Your task to perform on an android device: check storage Image 0: 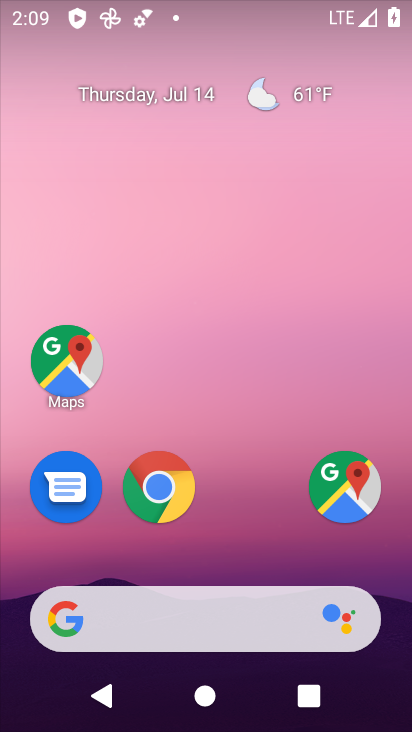
Step 0: drag from (253, 532) to (276, 148)
Your task to perform on an android device: check storage Image 1: 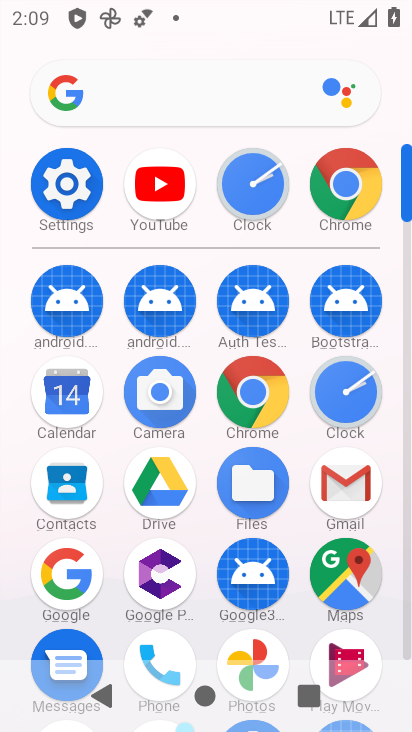
Step 1: click (78, 197)
Your task to perform on an android device: check storage Image 2: 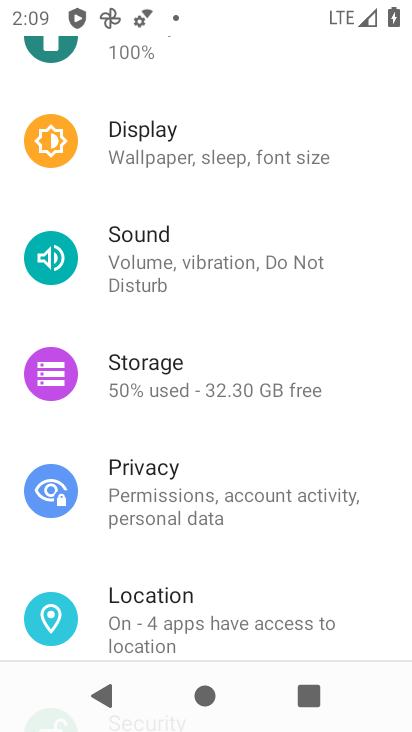
Step 2: drag from (374, 201) to (374, 306)
Your task to perform on an android device: check storage Image 3: 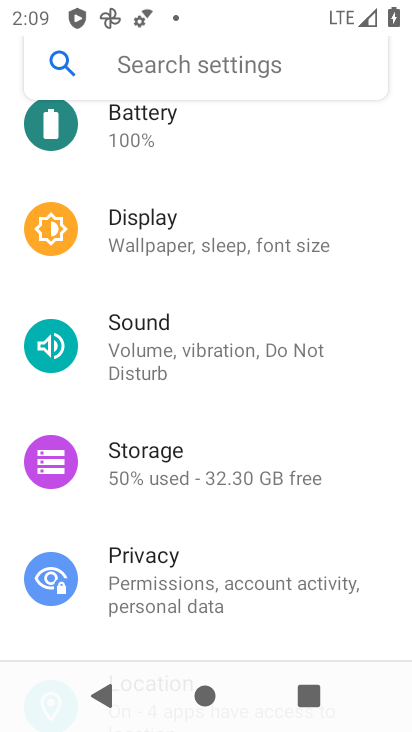
Step 3: drag from (368, 205) to (366, 285)
Your task to perform on an android device: check storage Image 4: 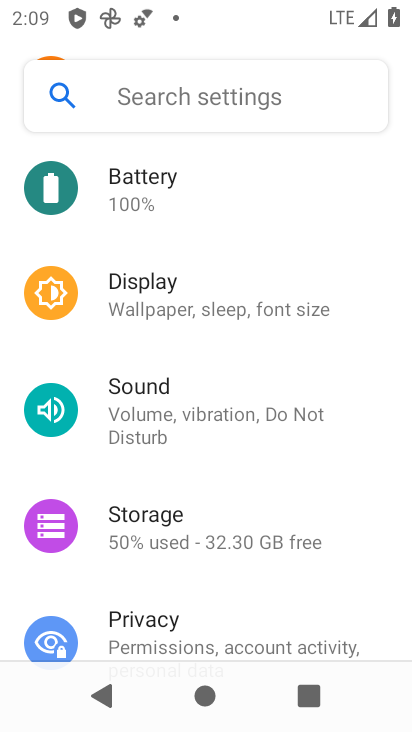
Step 4: drag from (358, 205) to (361, 311)
Your task to perform on an android device: check storage Image 5: 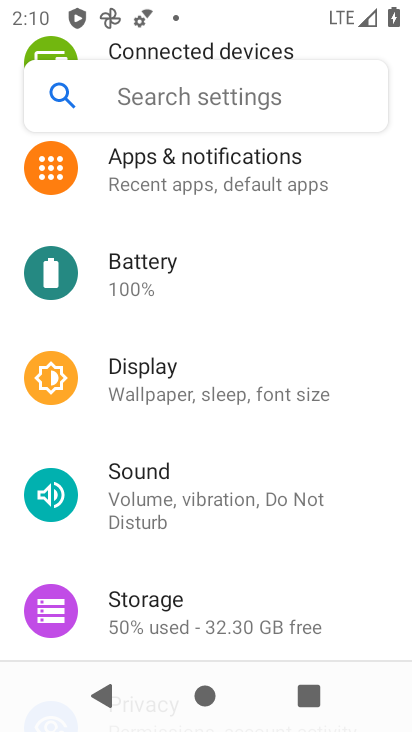
Step 5: drag from (358, 202) to (358, 313)
Your task to perform on an android device: check storage Image 6: 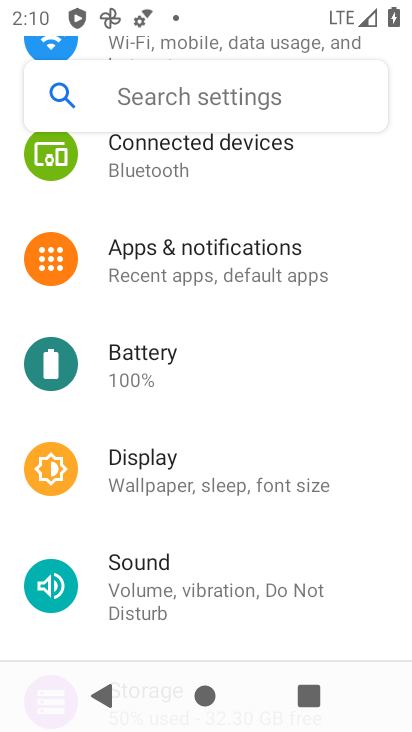
Step 6: drag from (359, 200) to (371, 355)
Your task to perform on an android device: check storage Image 7: 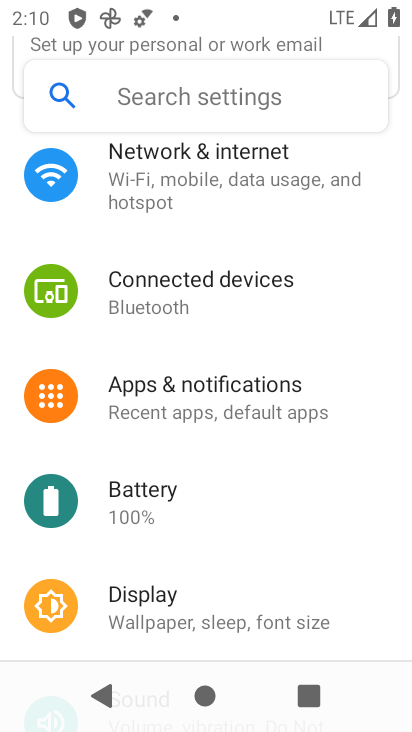
Step 7: drag from (355, 257) to (368, 375)
Your task to perform on an android device: check storage Image 8: 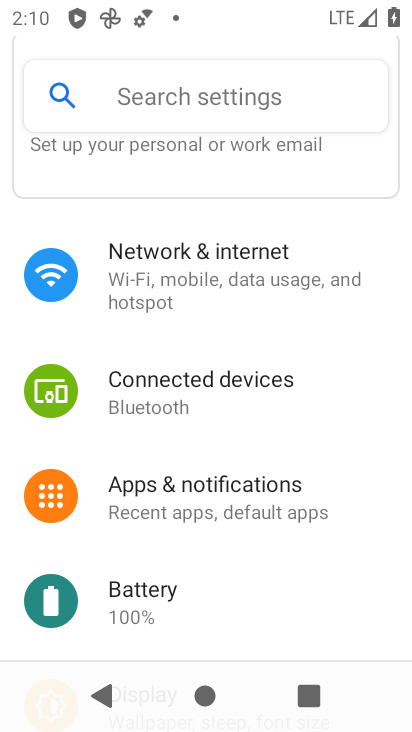
Step 8: drag from (350, 333) to (357, 482)
Your task to perform on an android device: check storage Image 9: 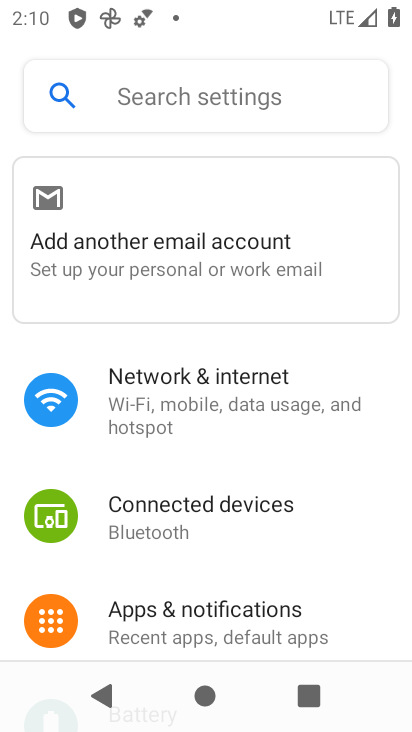
Step 9: drag from (367, 516) to (368, 436)
Your task to perform on an android device: check storage Image 10: 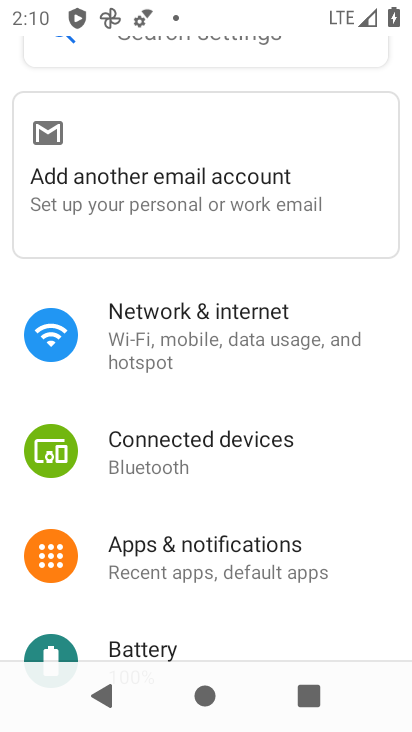
Step 10: drag from (370, 521) to (371, 443)
Your task to perform on an android device: check storage Image 11: 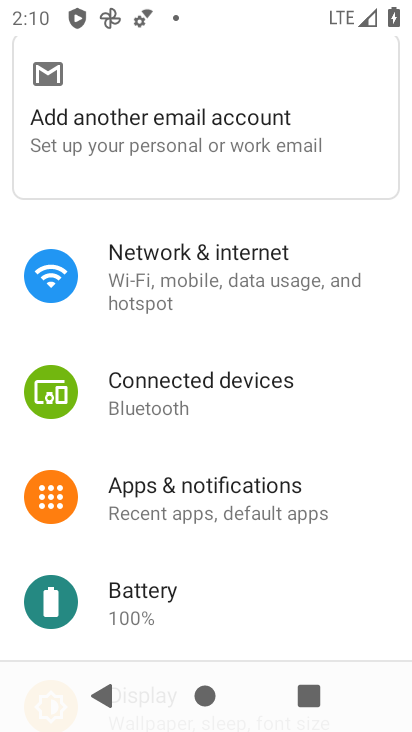
Step 11: drag from (371, 522) to (370, 432)
Your task to perform on an android device: check storage Image 12: 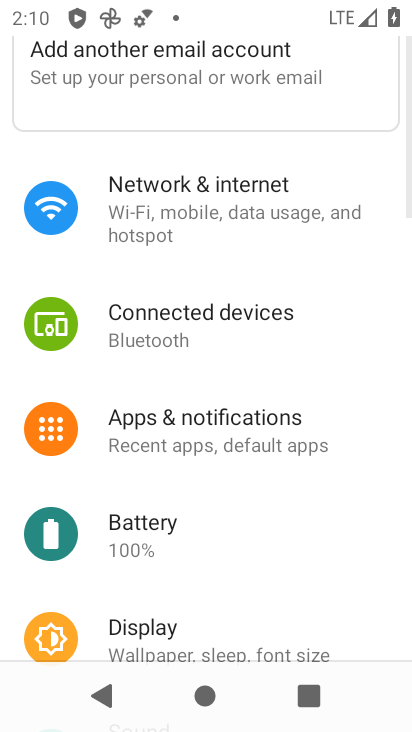
Step 12: drag from (369, 517) to (369, 449)
Your task to perform on an android device: check storage Image 13: 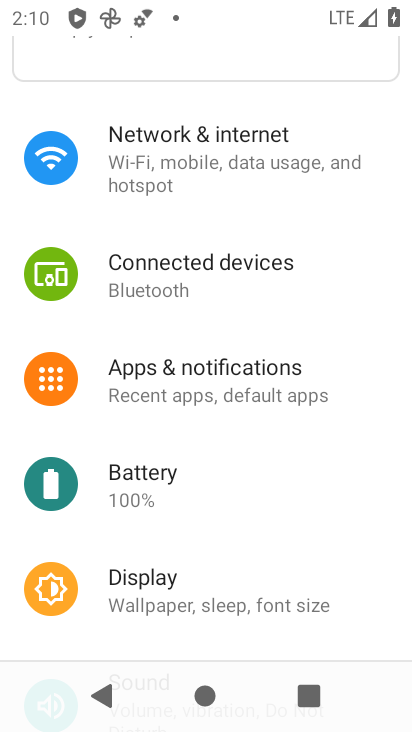
Step 13: drag from (358, 528) to (357, 410)
Your task to perform on an android device: check storage Image 14: 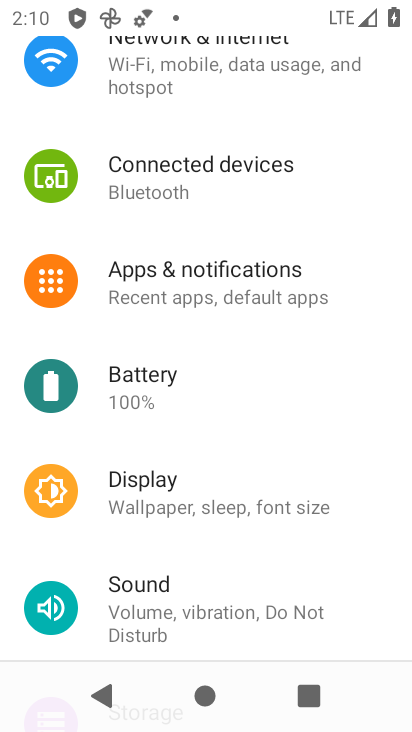
Step 14: drag from (357, 528) to (357, 430)
Your task to perform on an android device: check storage Image 15: 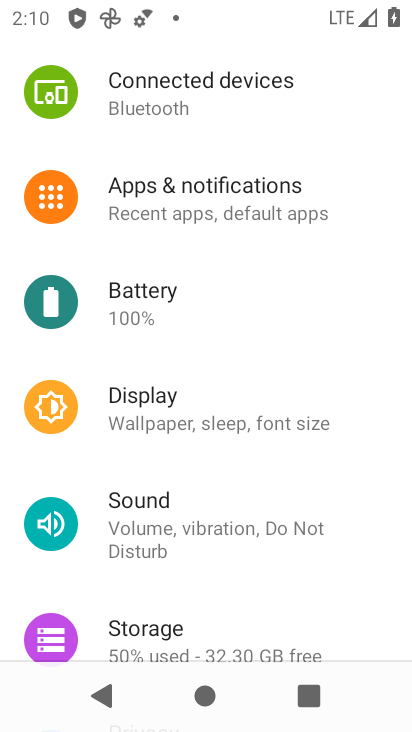
Step 15: drag from (372, 563) to (374, 451)
Your task to perform on an android device: check storage Image 16: 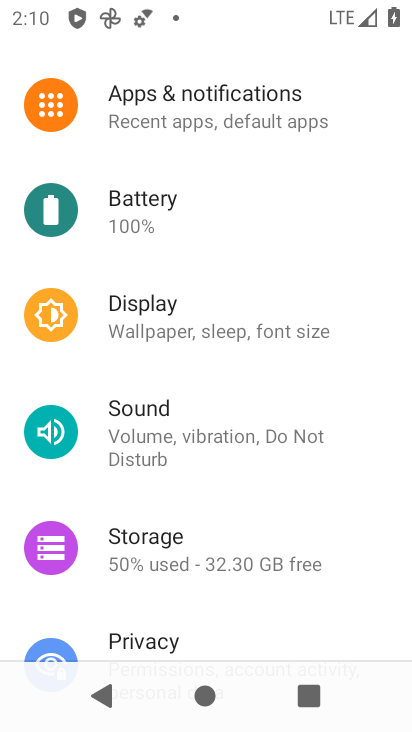
Step 16: drag from (356, 555) to (355, 444)
Your task to perform on an android device: check storage Image 17: 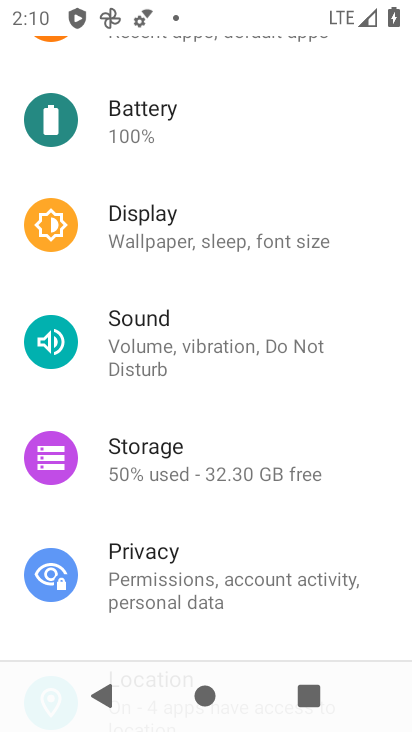
Step 17: drag from (355, 536) to (359, 455)
Your task to perform on an android device: check storage Image 18: 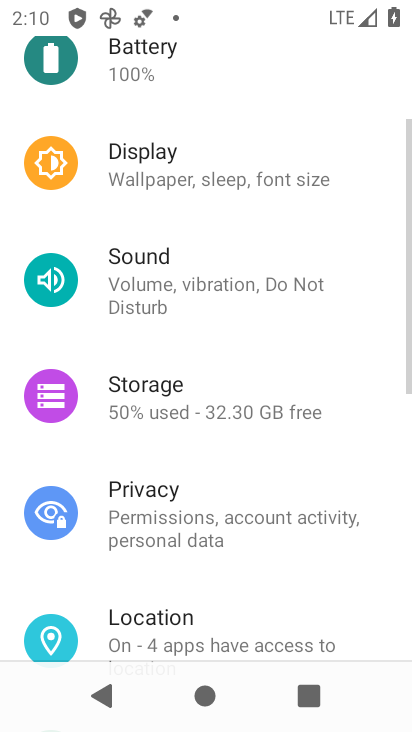
Step 18: click (325, 417)
Your task to perform on an android device: check storage Image 19: 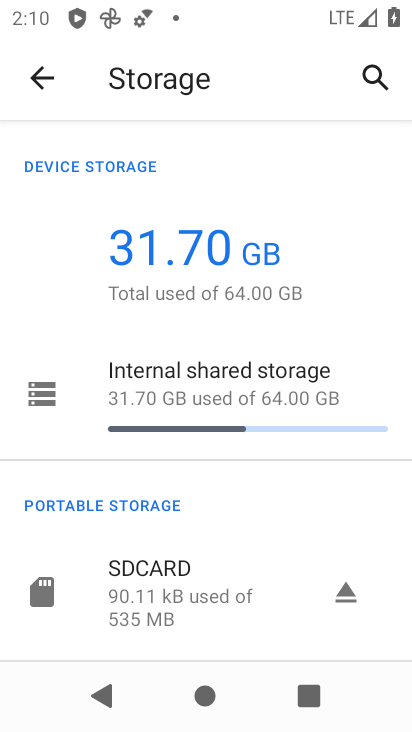
Step 19: task complete